Your task to perform on an android device: Go to network settings Image 0: 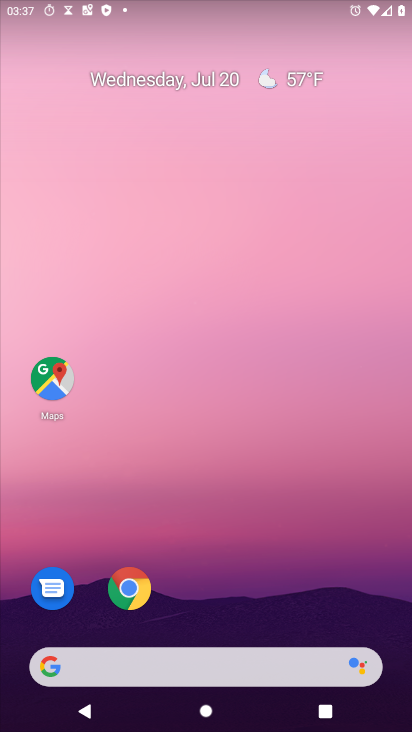
Step 0: drag from (245, 605) to (277, 19)
Your task to perform on an android device: Go to network settings Image 1: 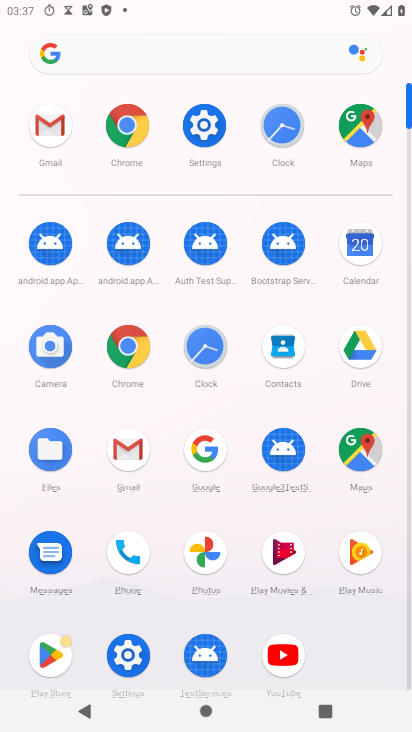
Step 1: click (207, 119)
Your task to perform on an android device: Go to network settings Image 2: 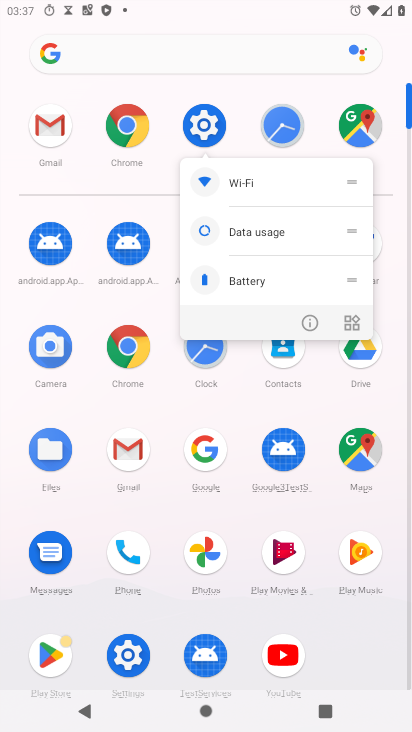
Step 2: click (190, 118)
Your task to perform on an android device: Go to network settings Image 3: 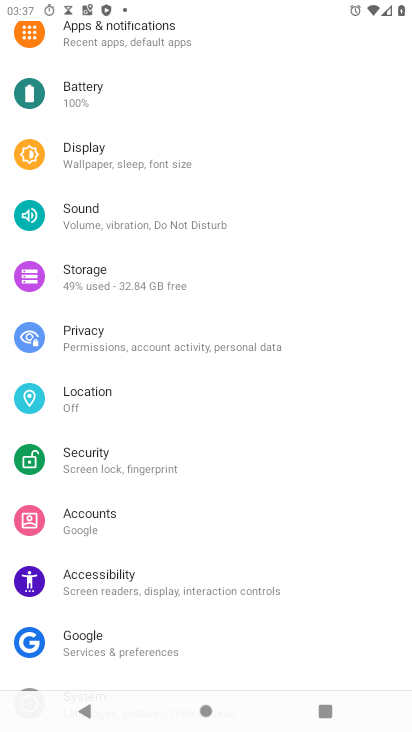
Step 3: drag from (269, 119) to (257, 719)
Your task to perform on an android device: Go to network settings Image 4: 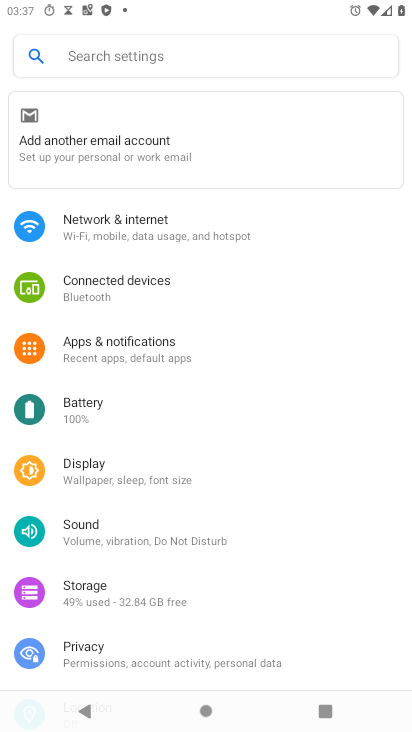
Step 4: click (154, 222)
Your task to perform on an android device: Go to network settings Image 5: 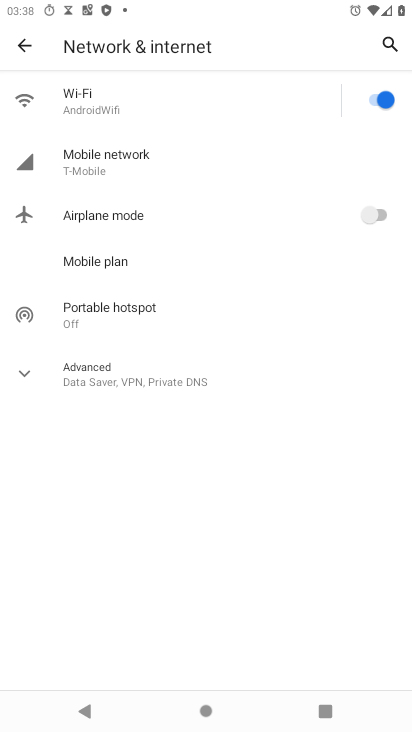
Step 5: task complete